Your task to perform on an android device: check out phone information Image 0: 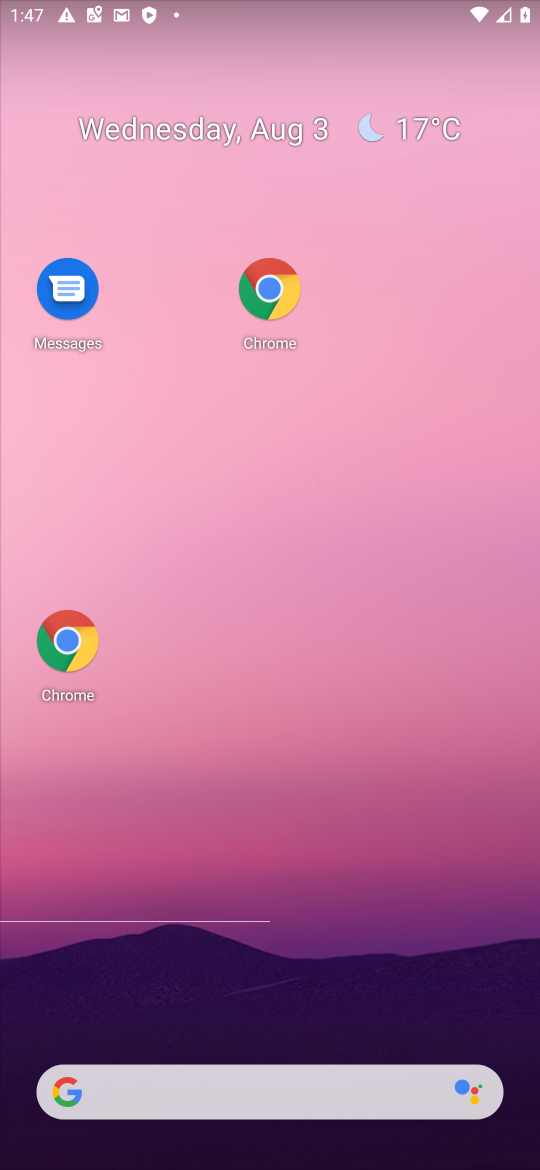
Step 0: drag from (337, 1044) to (444, 27)
Your task to perform on an android device: check out phone information Image 1: 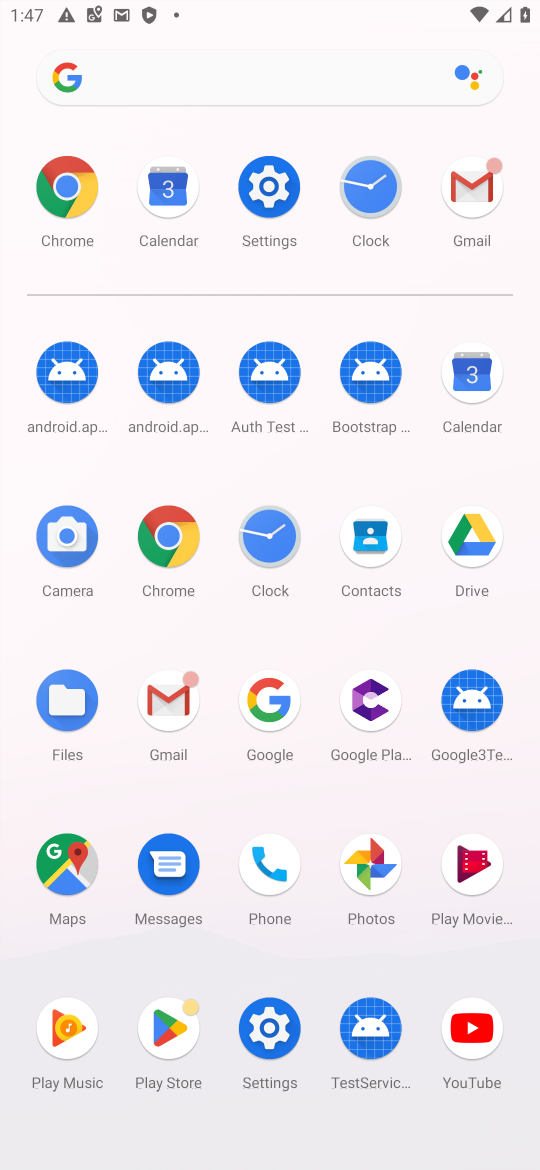
Step 1: click (283, 199)
Your task to perform on an android device: check out phone information Image 2: 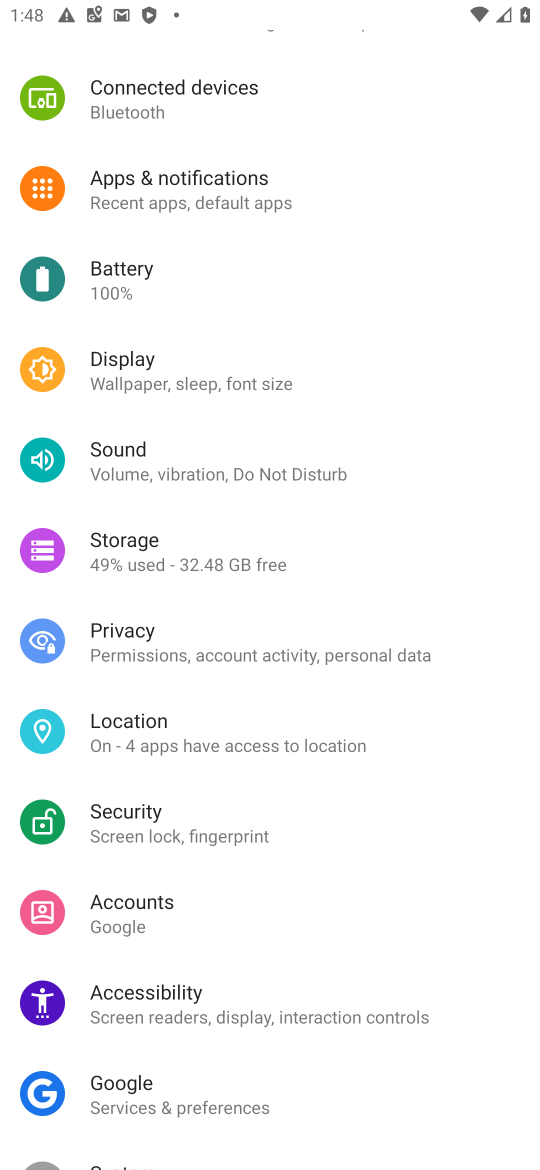
Step 2: task complete